Your task to perform on an android device: check google app version Image 0: 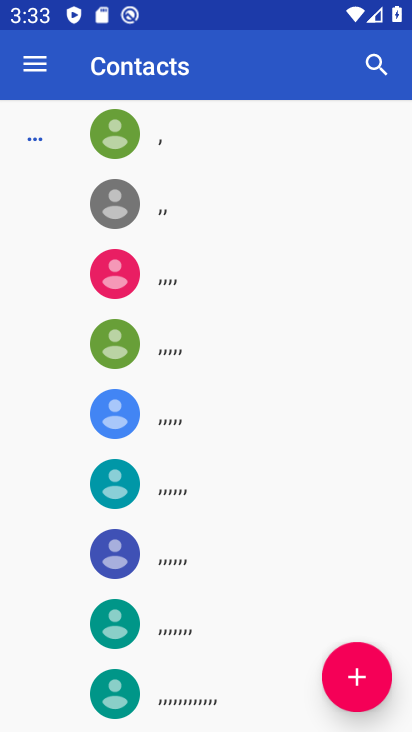
Step 0: press back button
Your task to perform on an android device: check google app version Image 1: 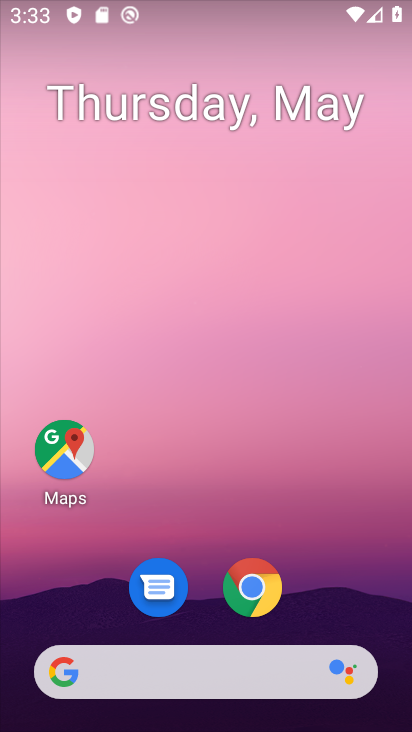
Step 1: drag from (308, 469) to (282, 43)
Your task to perform on an android device: check google app version Image 2: 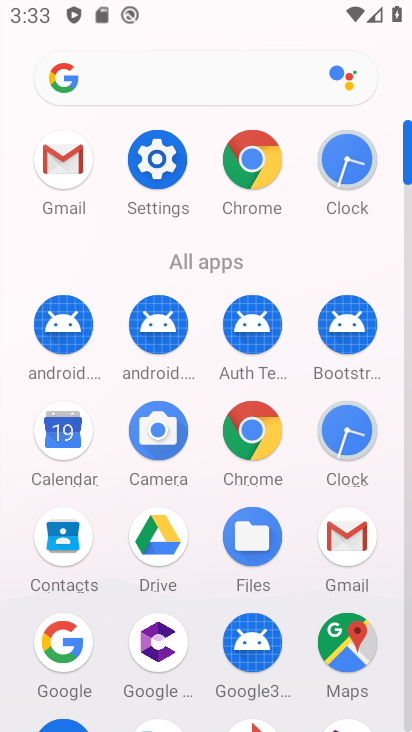
Step 2: click (58, 637)
Your task to perform on an android device: check google app version Image 3: 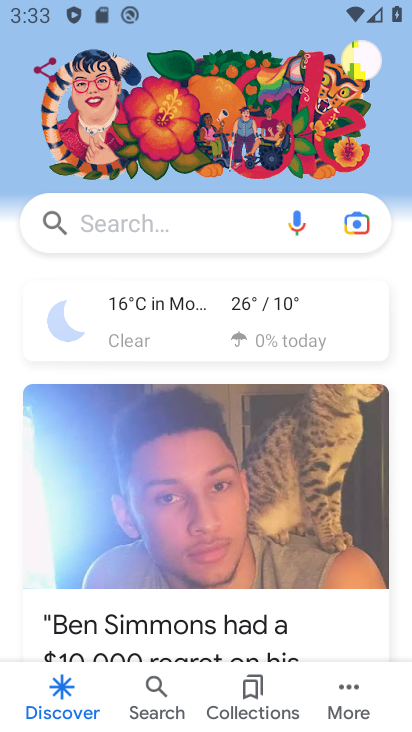
Step 3: click (346, 687)
Your task to perform on an android device: check google app version Image 4: 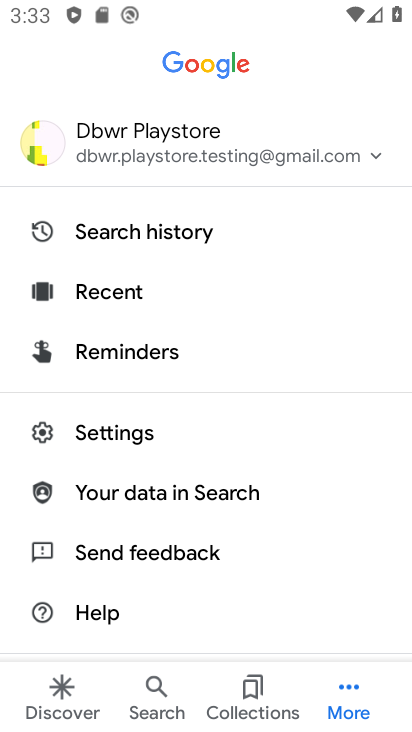
Step 4: click (133, 409)
Your task to perform on an android device: check google app version Image 5: 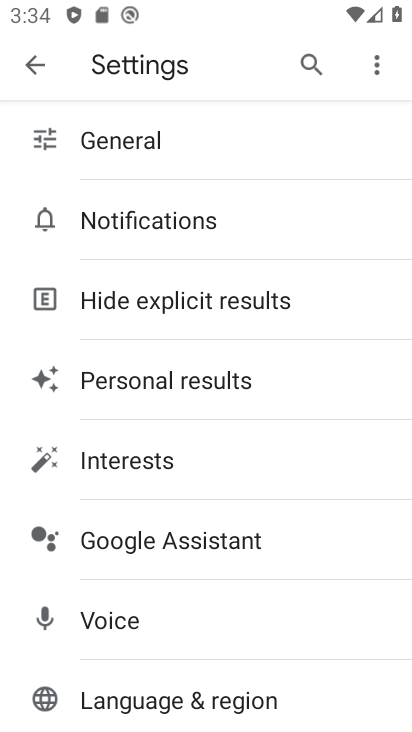
Step 5: drag from (223, 595) to (253, 181)
Your task to perform on an android device: check google app version Image 6: 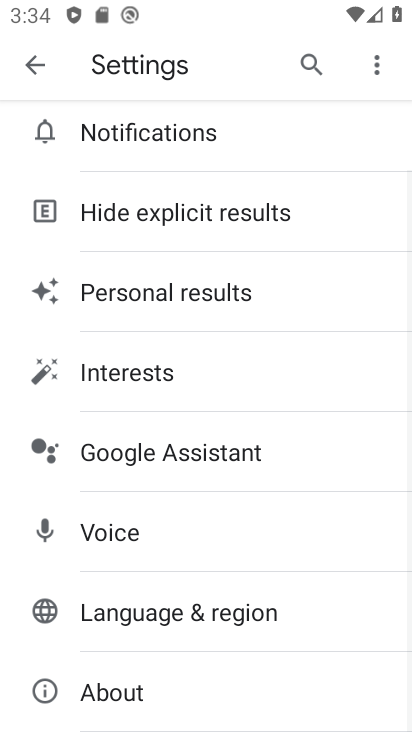
Step 6: click (126, 682)
Your task to perform on an android device: check google app version Image 7: 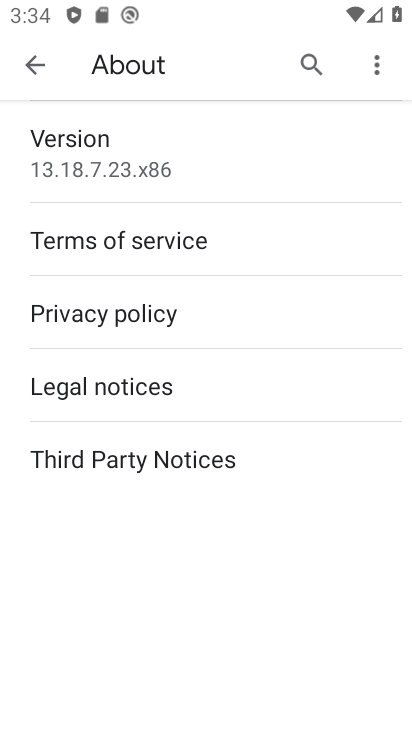
Step 7: task complete